Your task to perform on an android device: Open Reddit.com Image 0: 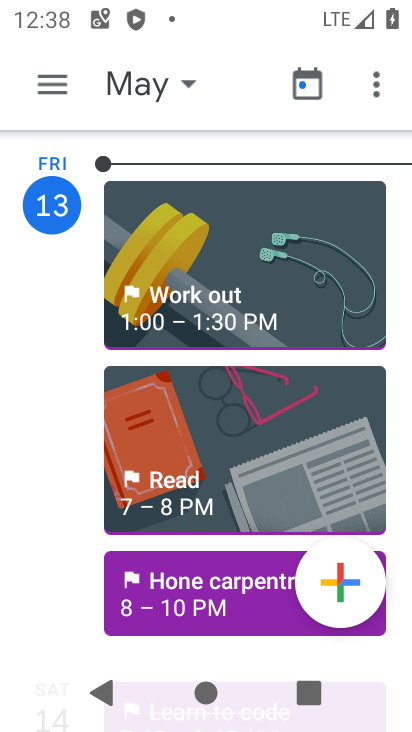
Step 0: press home button
Your task to perform on an android device: Open Reddit.com Image 1: 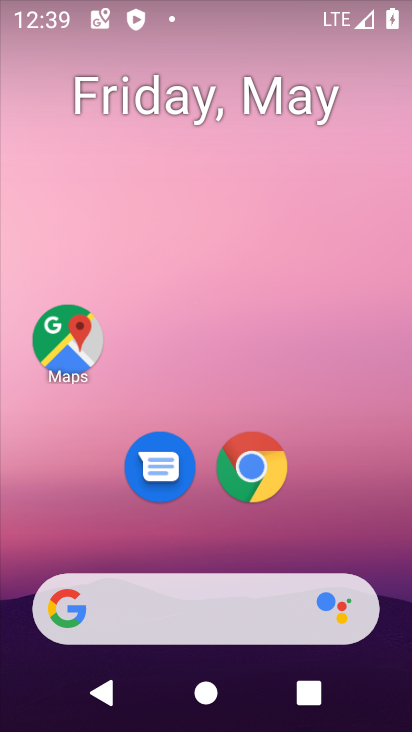
Step 1: click (252, 464)
Your task to perform on an android device: Open Reddit.com Image 2: 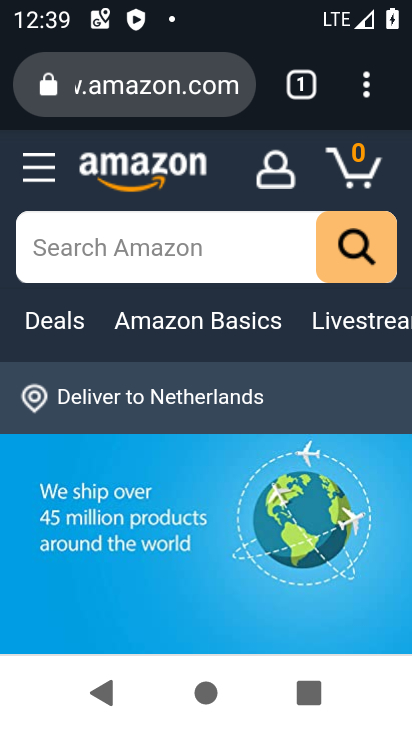
Step 2: click (207, 82)
Your task to perform on an android device: Open Reddit.com Image 3: 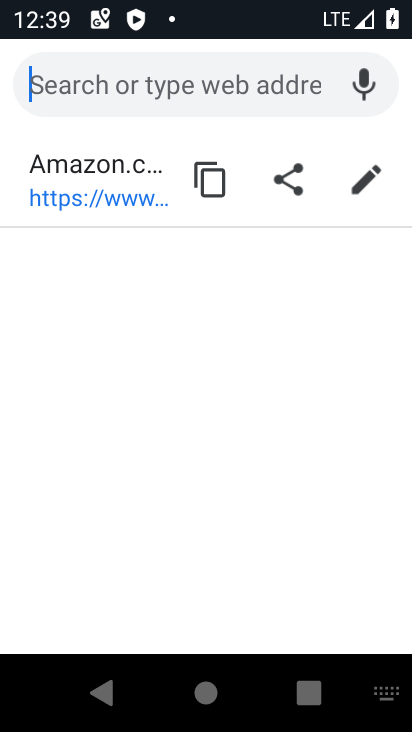
Step 3: type "Reddit.com"
Your task to perform on an android device: Open Reddit.com Image 4: 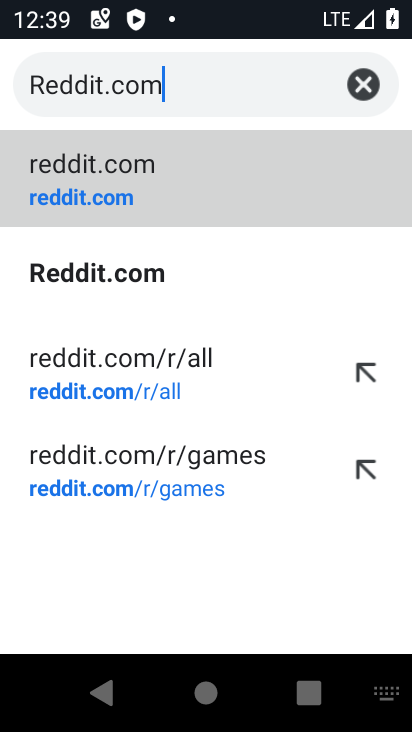
Step 4: click (102, 275)
Your task to perform on an android device: Open Reddit.com Image 5: 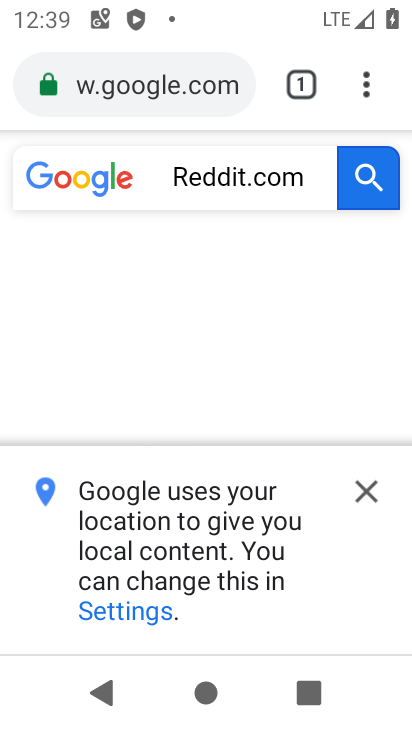
Step 5: click (369, 488)
Your task to perform on an android device: Open Reddit.com Image 6: 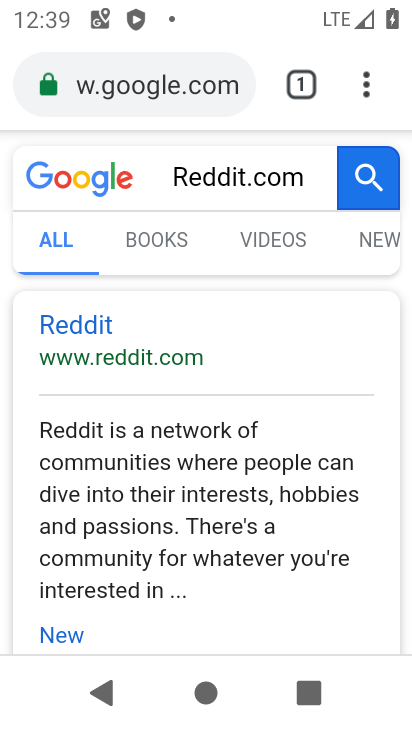
Step 6: click (82, 348)
Your task to perform on an android device: Open Reddit.com Image 7: 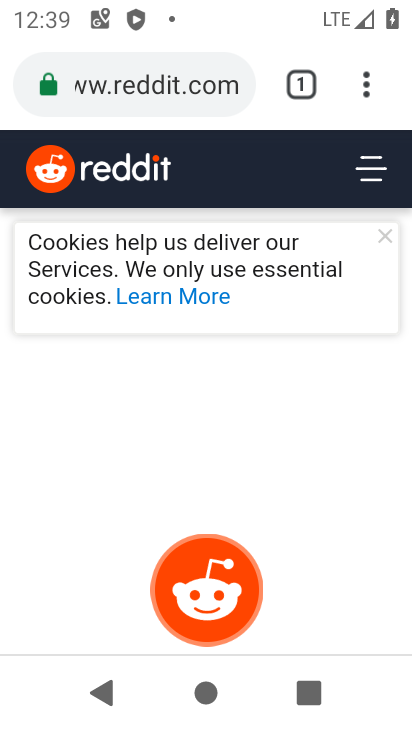
Step 7: task complete